Your task to perform on an android device: Is it going to rain today? Image 0: 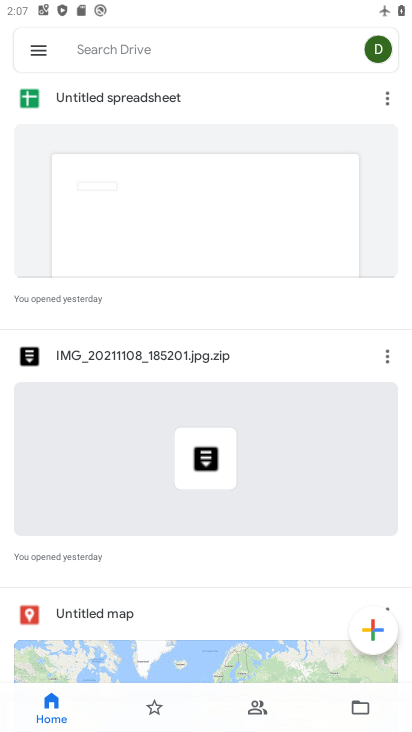
Step 0: press back button
Your task to perform on an android device: Is it going to rain today? Image 1: 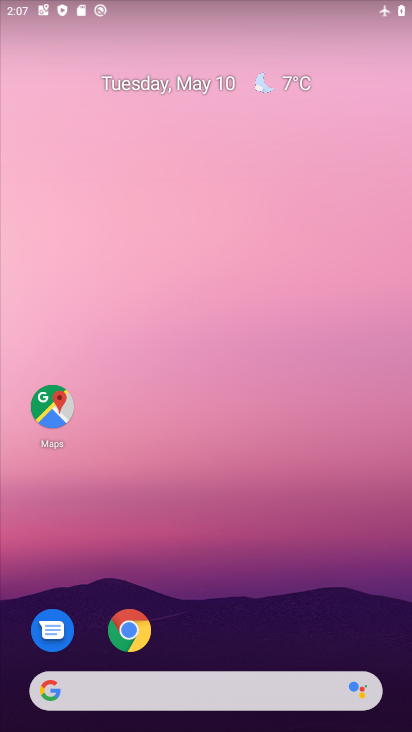
Step 1: drag from (210, 623) to (165, 30)
Your task to perform on an android device: Is it going to rain today? Image 2: 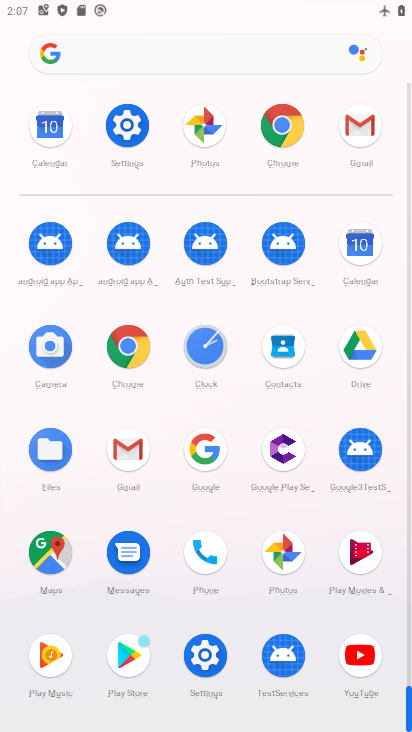
Step 2: click (282, 127)
Your task to perform on an android device: Is it going to rain today? Image 3: 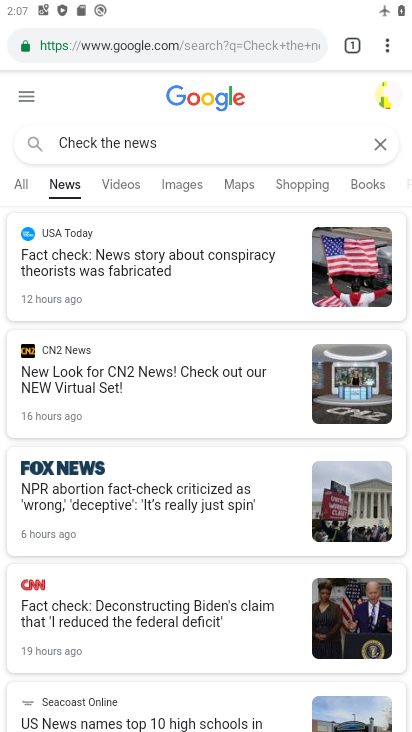
Step 3: click (193, 48)
Your task to perform on an android device: Is it going to rain today? Image 4: 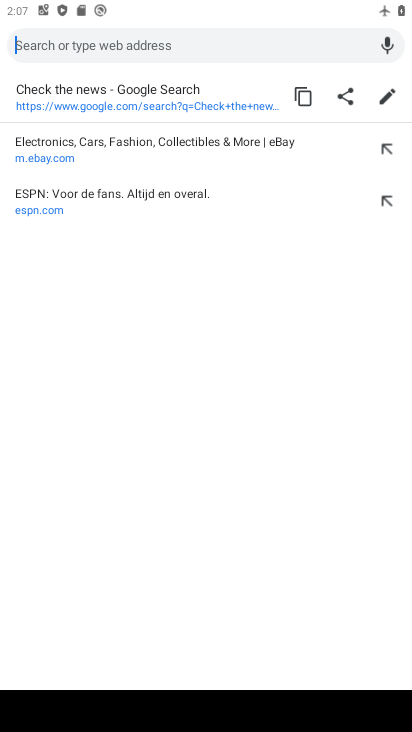
Step 4: type "Is it going to rain today?"
Your task to perform on an android device: Is it going to rain today? Image 5: 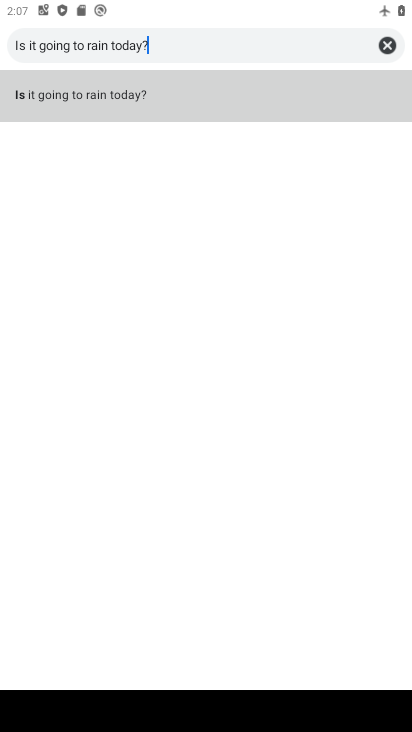
Step 5: type ""
Your task to perform on an android device: Is it going to rain today? Image 6: 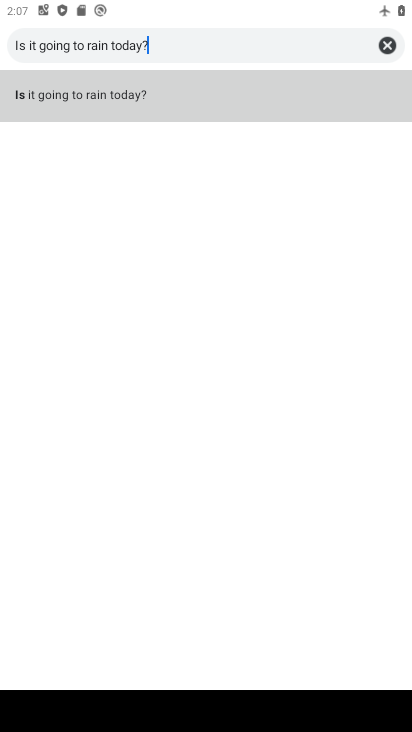
Step 6: click (162, 103)
Your task to perform on an android device: Is it going to rain today? Image 7: 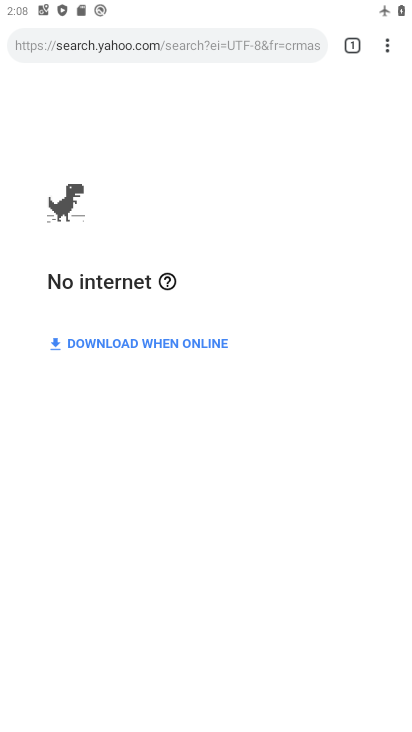
Step 7: task complete